Your task to perform on an android device: toggle notification dots Image 0: 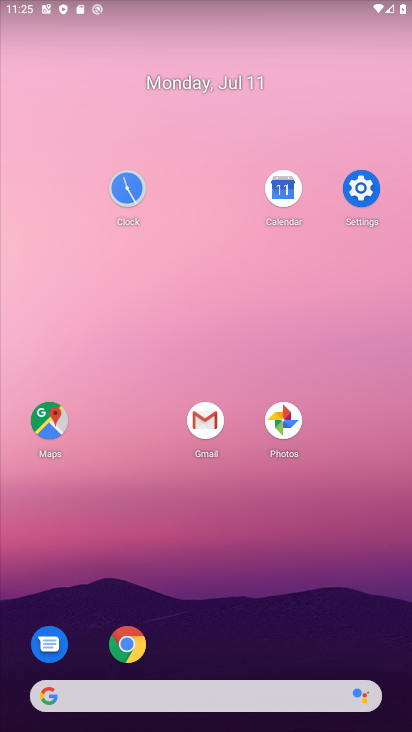
Step 0: click (361, 180)
Your task to perform on an android device: toggle notification dots Image 1: 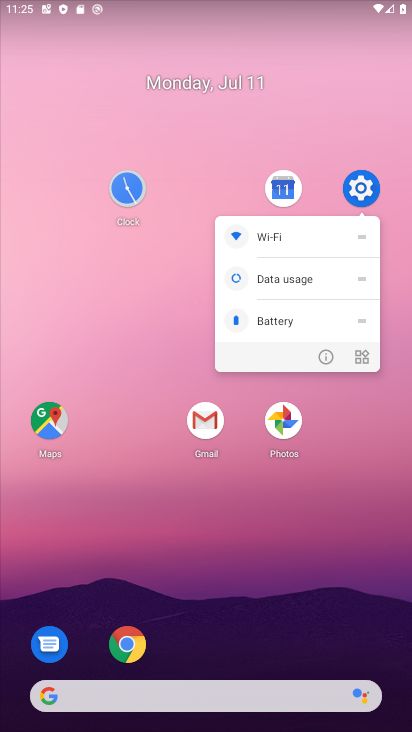
Step 1: click (367, 191)
Your task to perform on an android device: toggle notification dots Image 2: 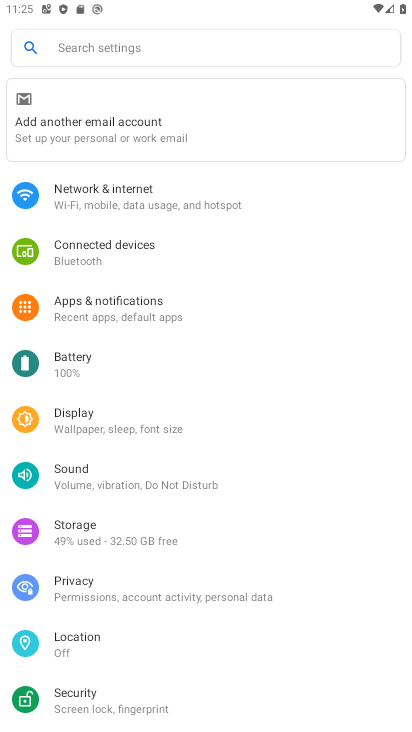
Step 2: click (232, 293)
Your task to perform on an android device: toggle notification dots Image 3: 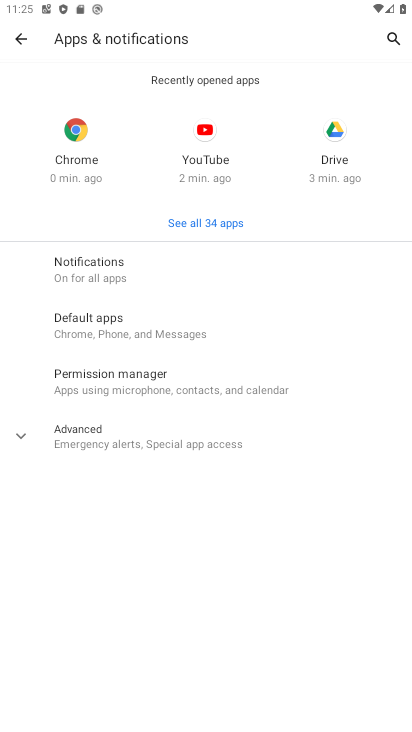
Step 3: click (110, 291)
Your task to perform on an android device: toggle notification dots Image 4: 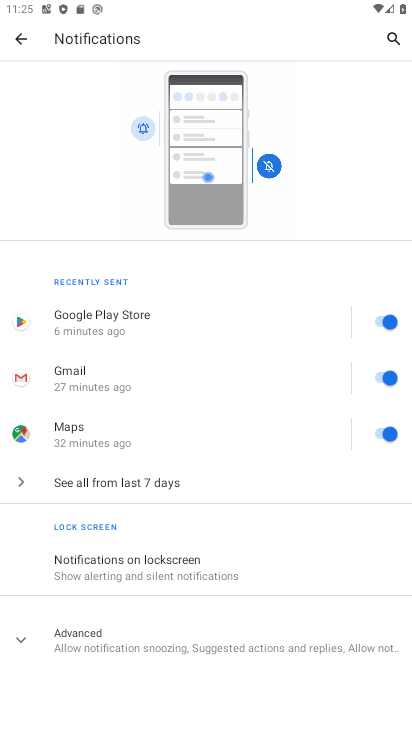
Step 4: click (123, 634)
Your task to perform on an android device: toggle notification dots Image 5: 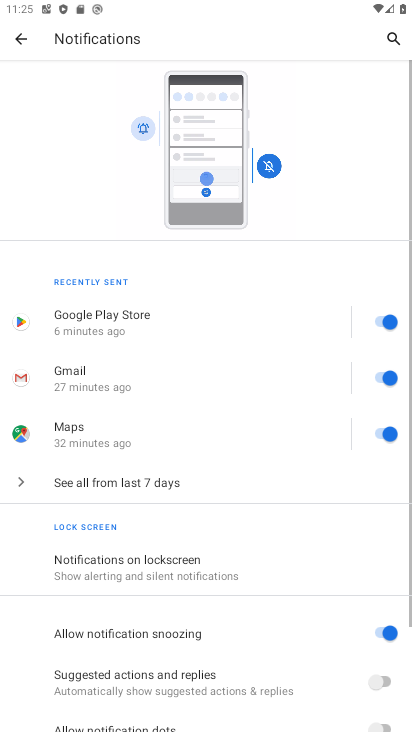
Step 5: drag from (189, 606) to (209, 321)
Your task to perform on an android device: toggle notification dots Image 6: 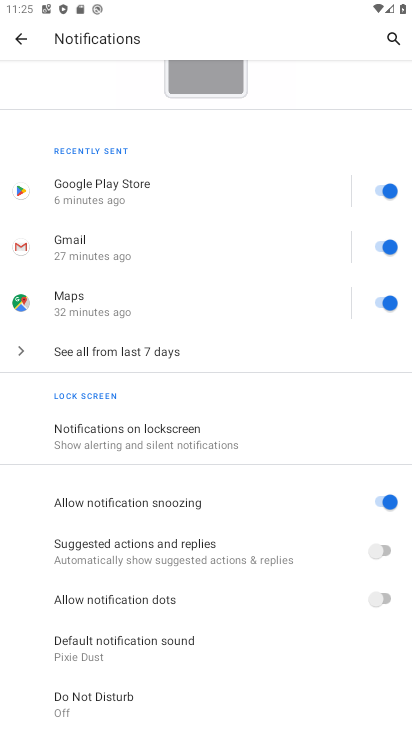
Step 6: click (370, 597)
Your task to perform on an android device: toggle notification dots Image 7: 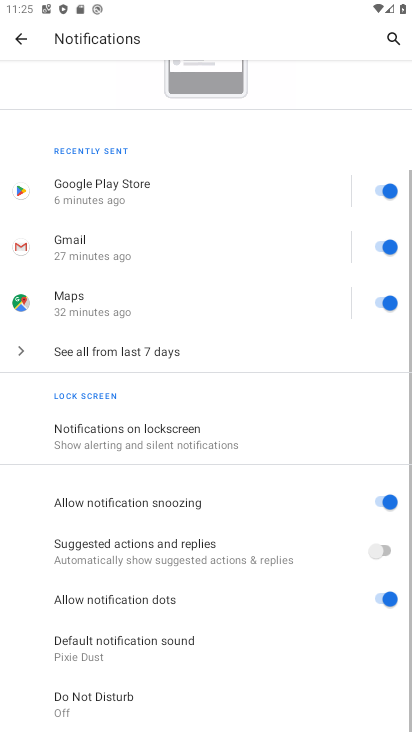
Step 7: task complete